Your task to perform on an android device: Open Google Chrome and open the bookmarks view Image 0: 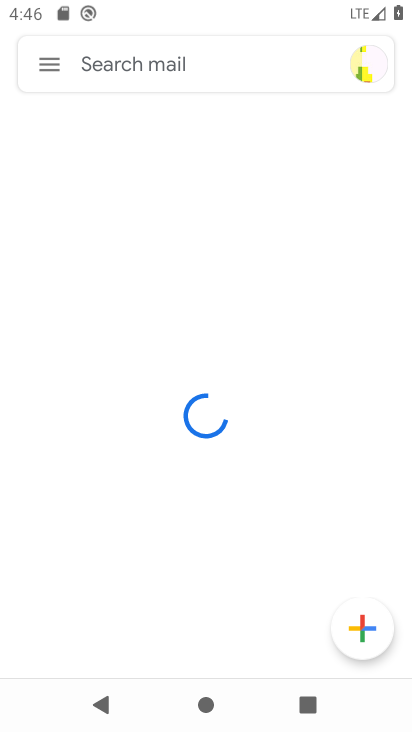
Step 0: press home button
Your task to perform on an android device: Open Google Chrome and open the bookmarks view Image 1: 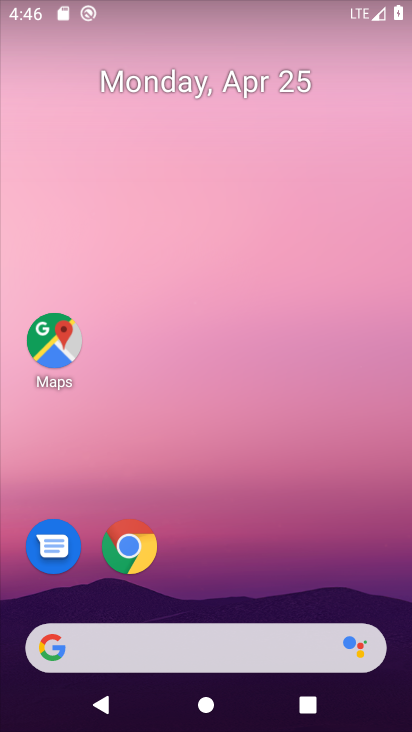
Step 1: click (106, 539)
Your task to perform on an android device: Open Google Chrome and open the bookmarks view Image 2: 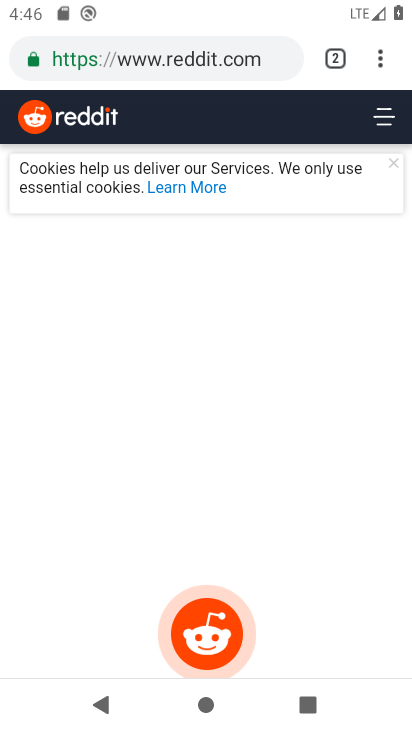
Step 2: click (378, 51)
Your task to perform on an android device: Open Google Chrome and open the bookmarks view Image 3: 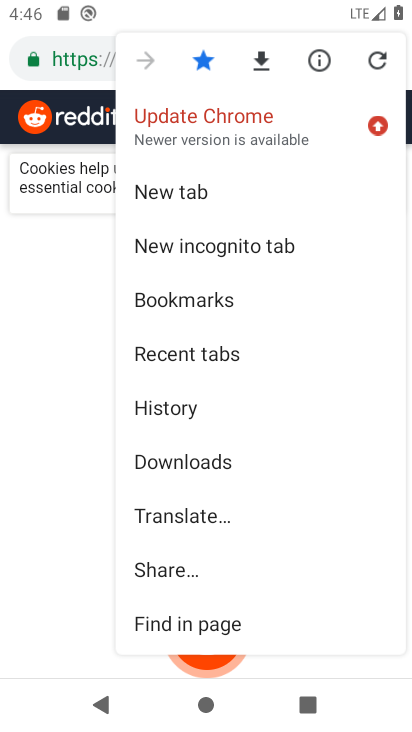
Step 3: click (187, 305)
Your task to perform on an android device: Open Google Chrome and open the bookmarks view Image 4: 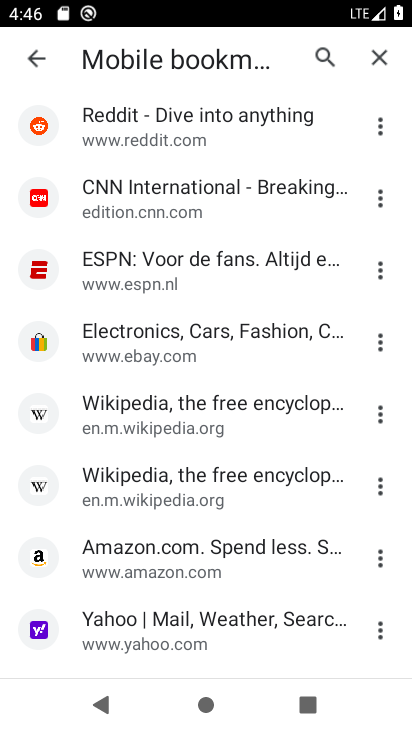
Step 4: task complete